Your task to perform on an android device: turn on javascript in the chrome app Image 0: 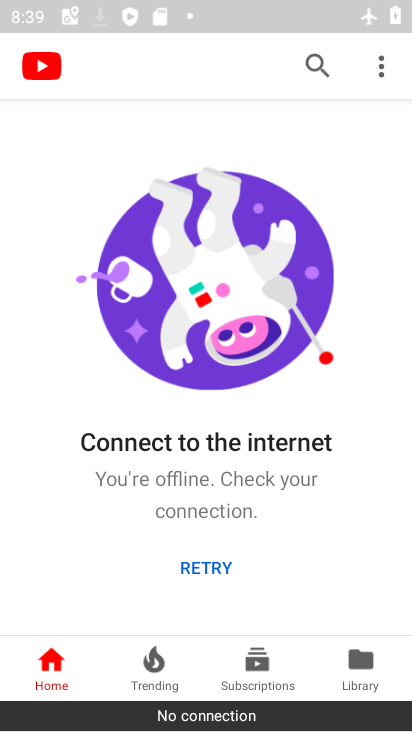
Step 0: press back button
Your task to perform on an android device: turn on javascript in the chrome app Image 1: 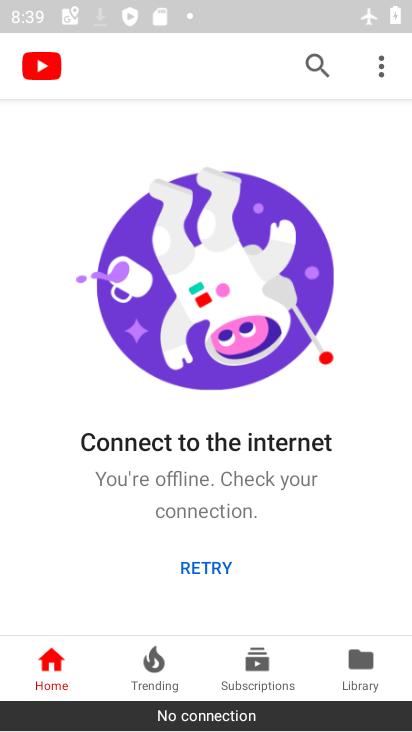
Step 1: press back button
Your task to perform on an android device: turn on javascript in the chrome app Image 2: 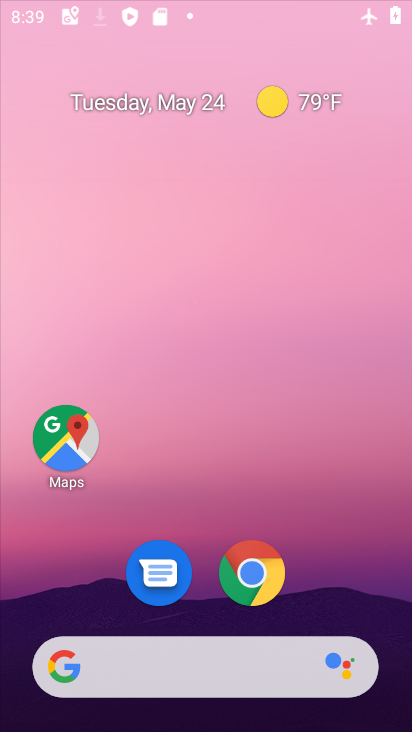
Step 2: press back button
Your task to perform on an android device: turn on javascript in the chrome app Image 3: 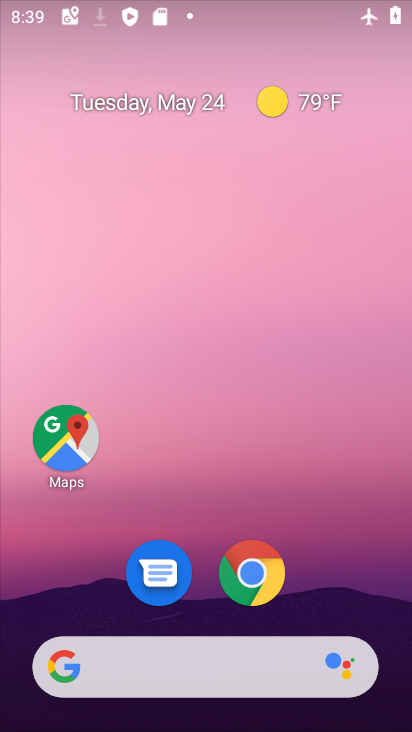
Step 3: press back button
Your task to perform on an android device: turn on javascript in the chrome app Image 4: 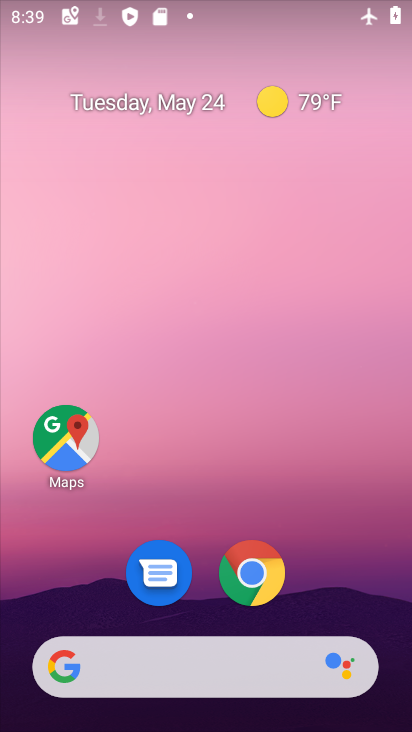
Step 4: press back button
Your task to perform on an android device: turn on javascript in the chrome app Image 5: 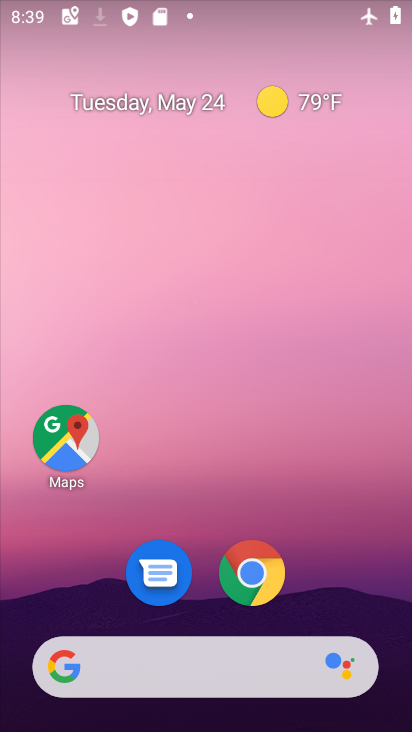
Step 5: press back button
Your task to perform on an android device: turn on javascript in the chrome app Image 6: 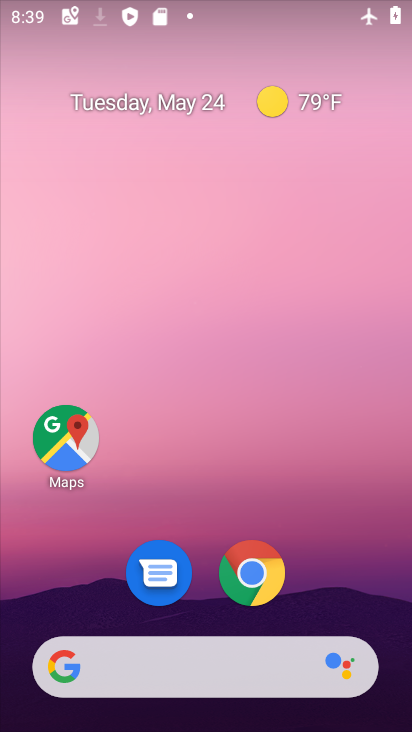
Step 6: press back button
Your task to perform on an android device: turn on javascript in the chrome app Image 7: 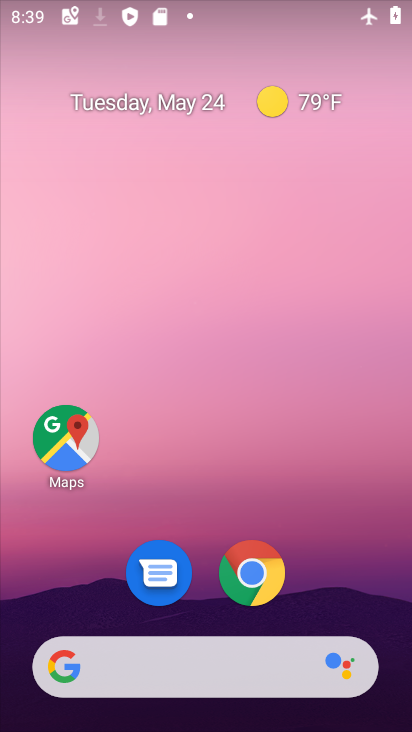
Step 7: drag from (316, 635) to (175, 111)
Your task to perform on an android device: turn on javascript in the chrome app Image 8: 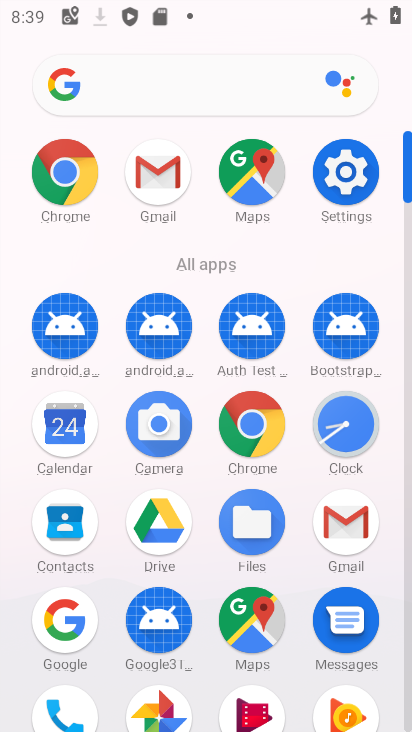
Step 8: click (269, 61)
Your task to perform on an android device: turn on javascript in the chrome app Image 9: 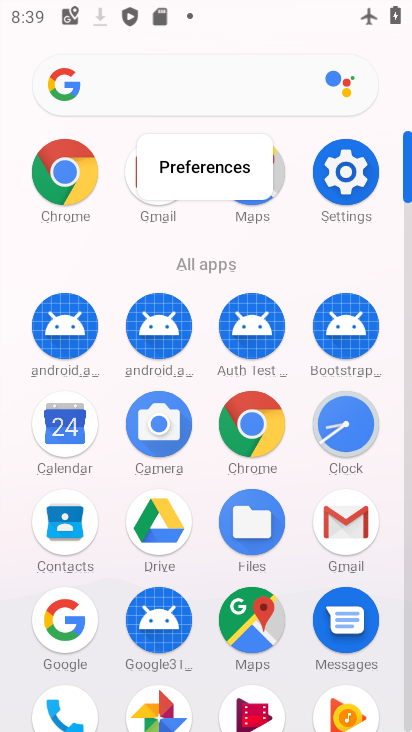
Step 9: click (62, 174)
Your task to perform on an android device: turn on javascript in the chrome app Image 10: 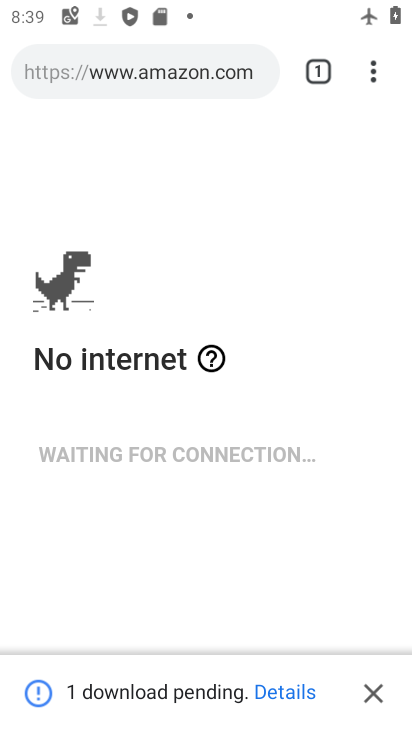
Step 10: click (72, 182)
Your task to perform on an android device: turn on javascript in the chrome app Image 11: 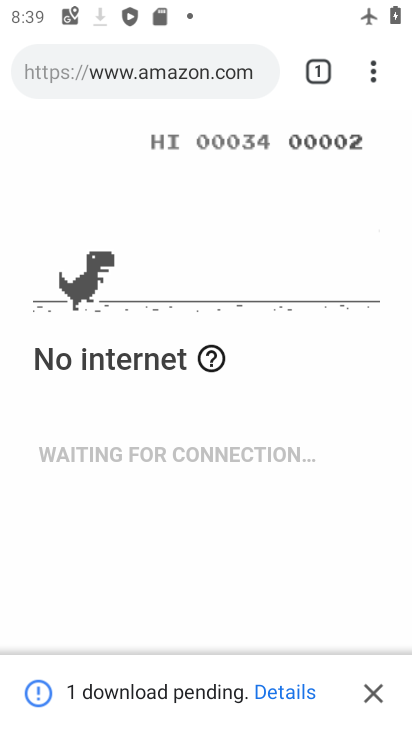
Step 11: task complete